Your task to perform on an android device: open a bookmark in the chrome app Image 0: 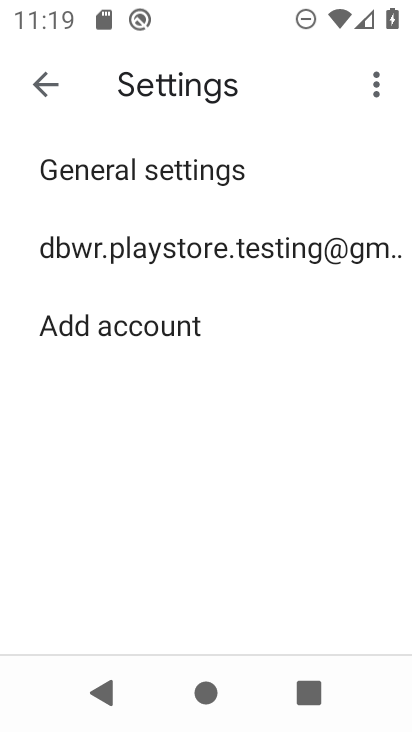
Step 0: press home button
Your task to perform on an android device: open a bookmark in the chrome app Image 1: 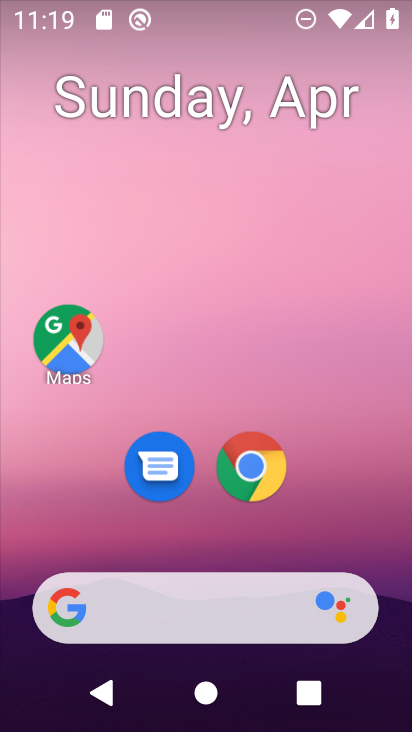
Step 1: drag from (366, 506) to (367, 93)
Your task to perform on an android device: open a bookmark in the chrome app Image 2: 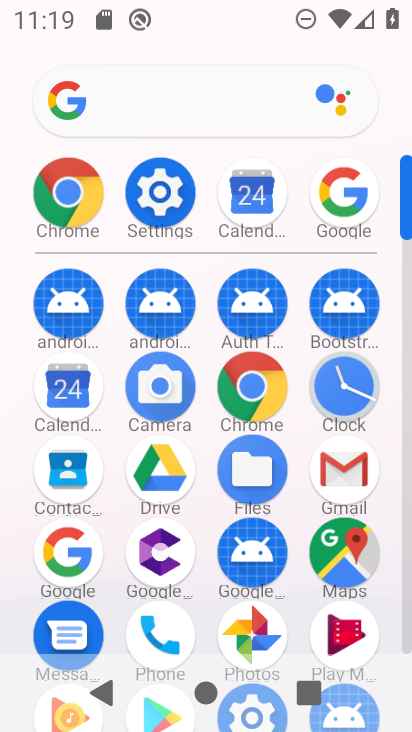
Step 2: click (248, 393)
Your task to perform on an android device: open a bookmark in the chrome app Image 3: 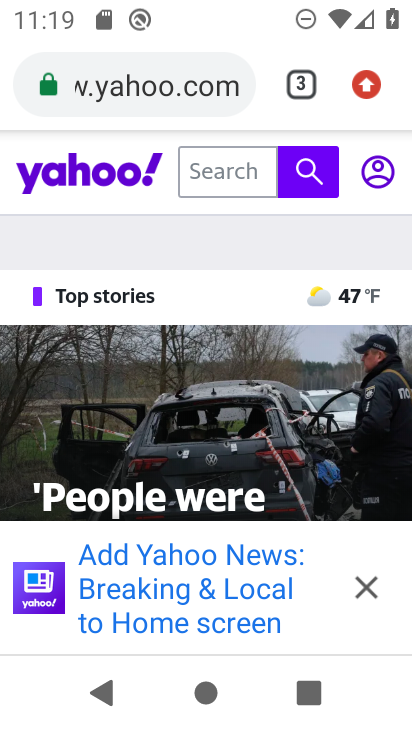
Step 3: click (365, 83)
Your task to perform on an android device: open a bookmark in the chrome app Image 4: 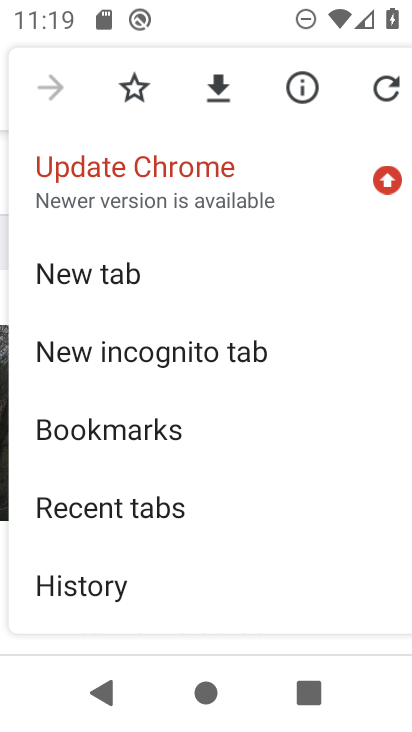
Step 4: click (171, 436)
Your task to perform on an android device: open a bookmark in the chrome app Image 5: 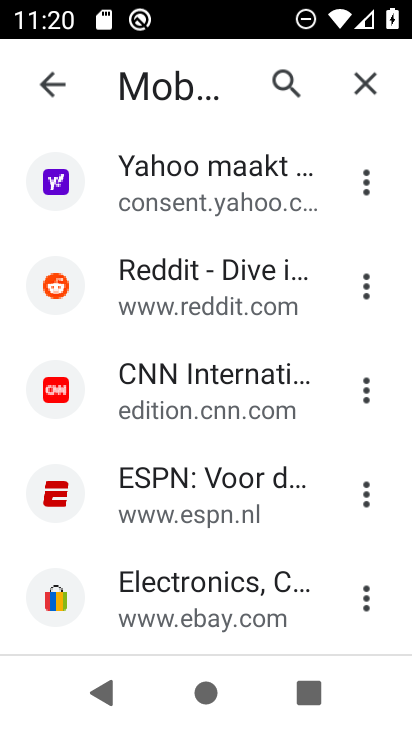
Step 5: click (259, 485)
Your task to perform on an android device: open a bookmark in the chrome app Image 6: 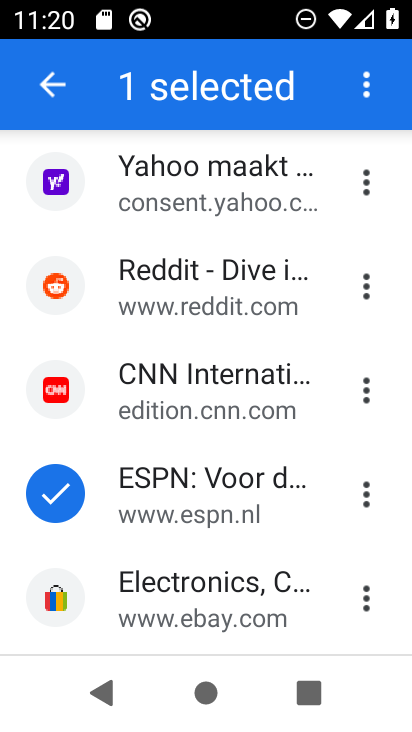
Step 6: click (259, 485)
Your task to perform on an android device: open a bookmark in the chrome app Image 7: 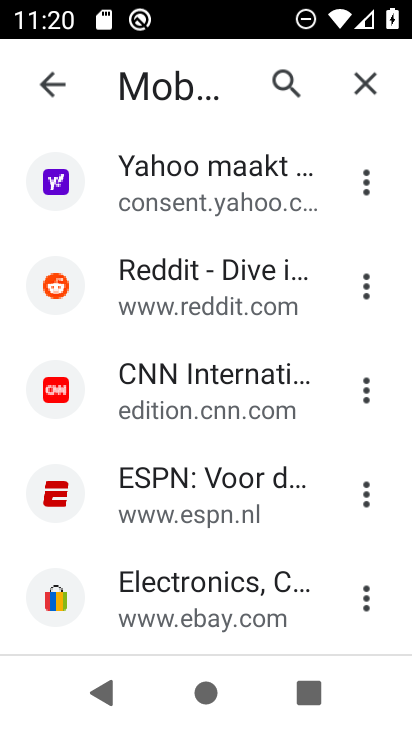
Step 7: click (261, 482)
Your task to perform on an android device: open a bookmark in the chrome app Image 8: 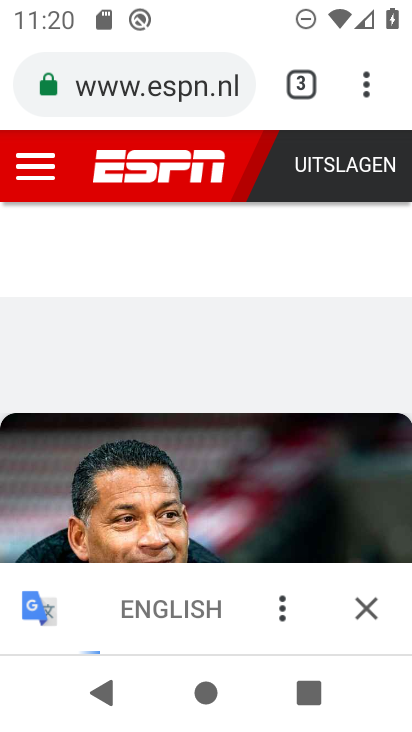
Step 8: task complete